Your task to perform on an android device: Go to Google Image 0: 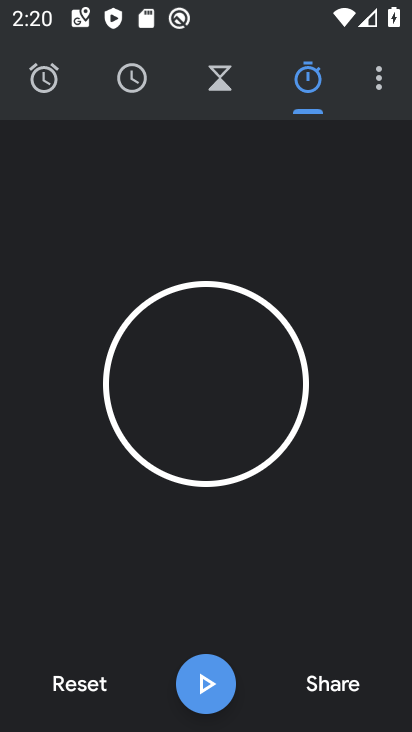
Step 0: press home button
Your task to perform on an android device: Go to Google Image 1: 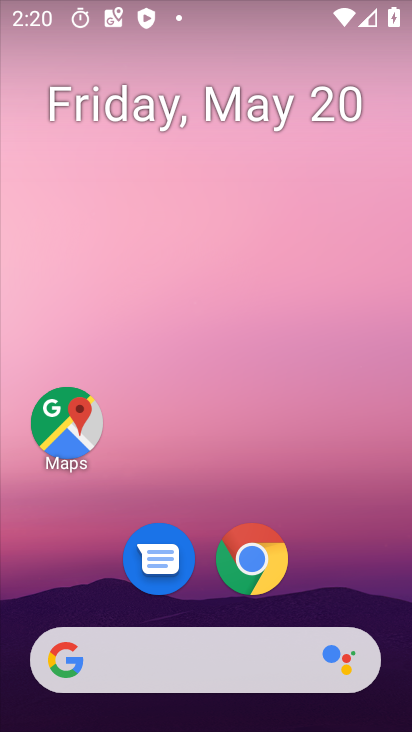
Step 1: drag from (302, 448) to (213, 52)
Your task to perform on an android device: Go to Google Image 2: 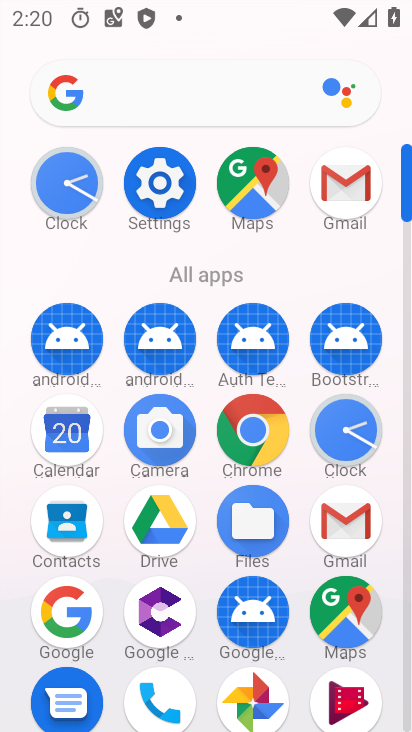
Step 2: click (59, 611)
Your task to perform on an android device: Go to Google Image 3: 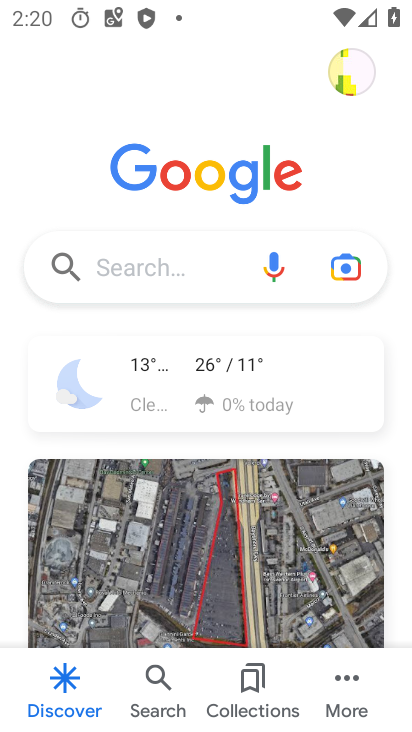
Step 3: task complete